Your task to perform on an android device: Check the weather Image 0: 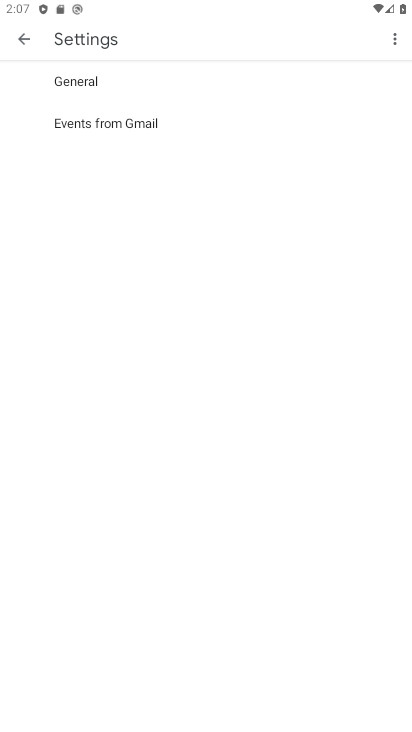
Step 0: task complete